Your task to perform on an android device: Go to Maps Image 0: 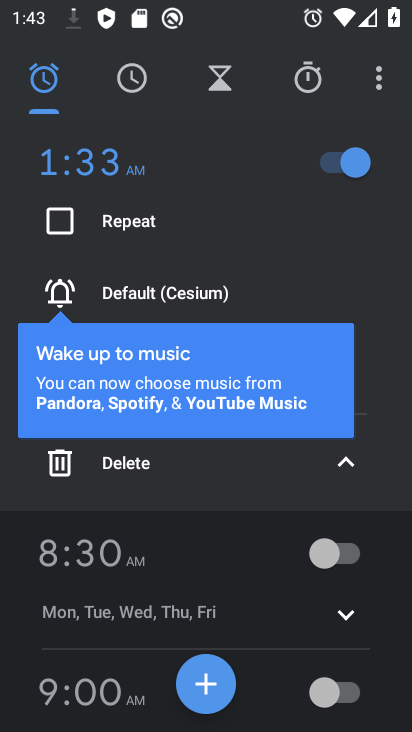
Step 0: press home button
Your task to perform on an android device: Go to Maps Image 1: 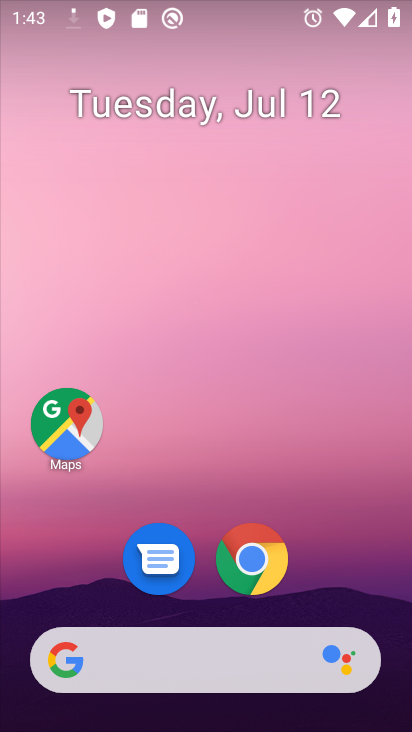
Step 1: drag from (375, 565) to (367, 153)
Your task to perform on an android device: Go to Maps Image 2: 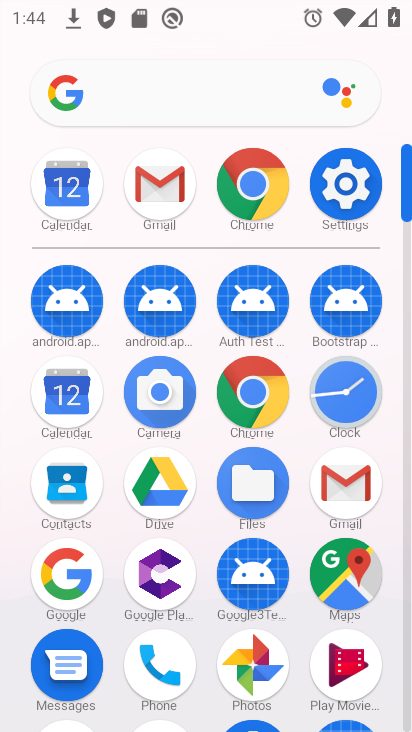
Step 2: click (359, 566)
Your task to perform on an android device: Go to Maps Image 3: 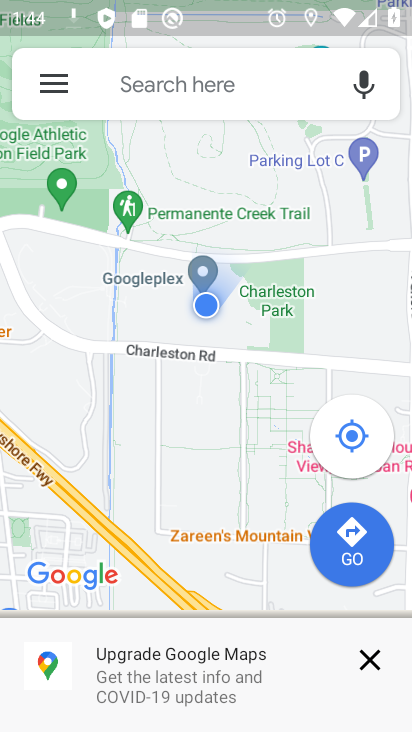
Step 3: task complete